Your task to perform on an android device: turn on airplane mode Image 0: 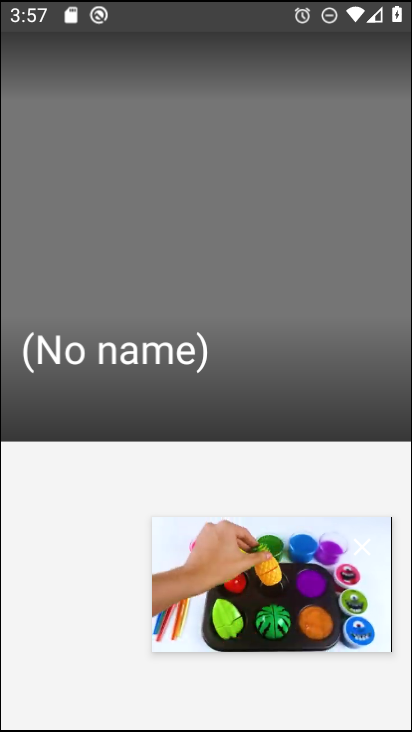
Step 0: click (380, 321)
Your task to perform on an android device: turn on airplane mode Image 1: 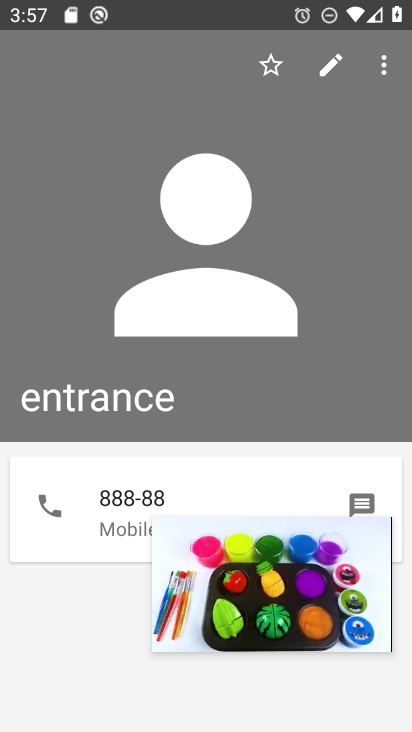
Step 1: press home button
Your task to perform on an android device: turn on airplane mode Image 2: 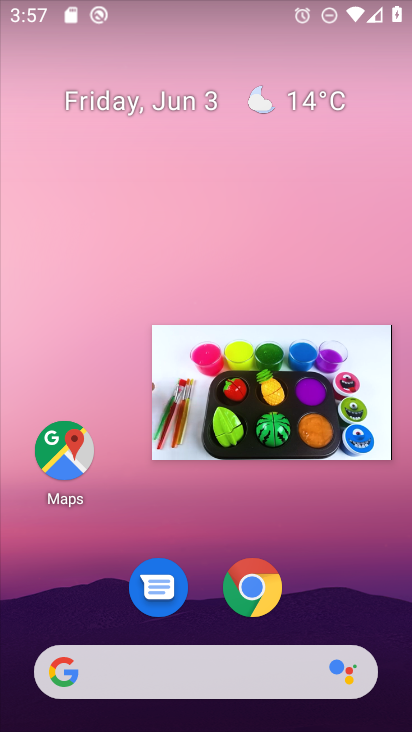
Step 2: click (374, 343)
Your task to perform on an android device: turn on airplane mode Image 3: 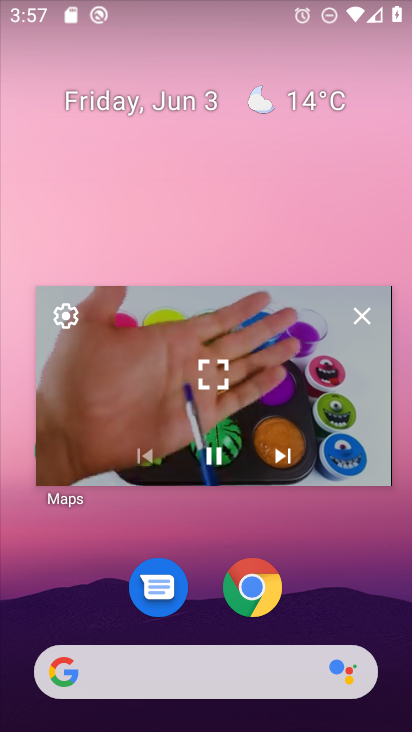
Step 3: click (363, 311)
Your task to perform on an android device: turn on airplane mode Image 4: 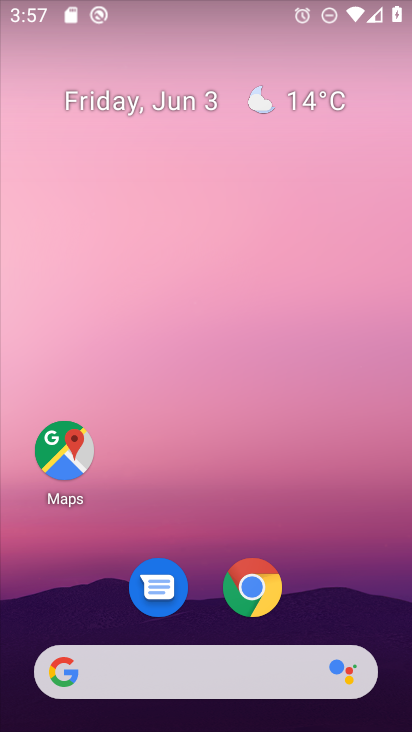
Step 4: drag from (200, 726) to (190, 179)
Your task to perform on an android device: turn on airplane mode Image 5: 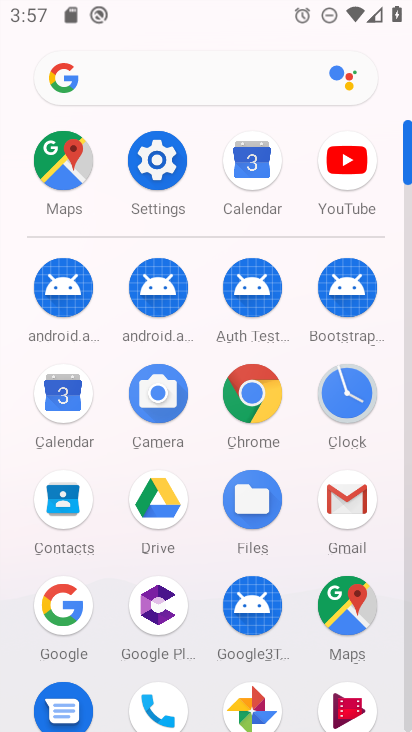
Step 5: click (159, 161)
Your task to perform on an android device: turn on airplane mode Image 6: 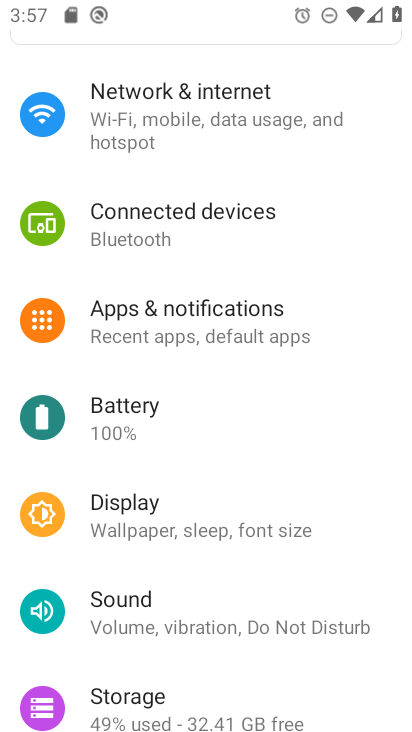
Step 6: drag from (237, 178) to (233, 539)
Your task to perform on an android device: turn on airplane mode Image 7: 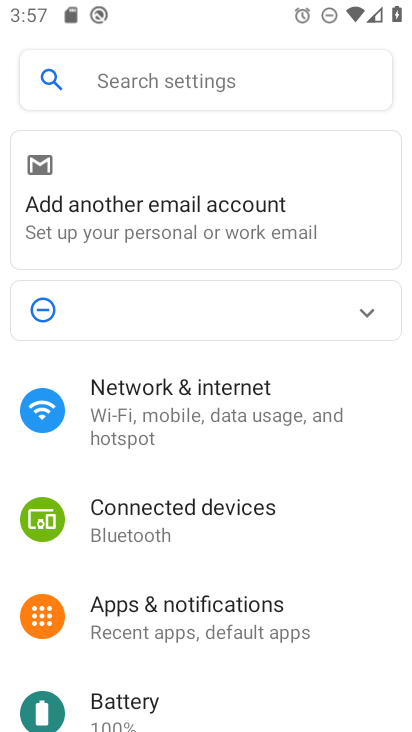
Step 7: click (202, 397)
Your task to perform on an android device: turn on airplane mode Image 8: 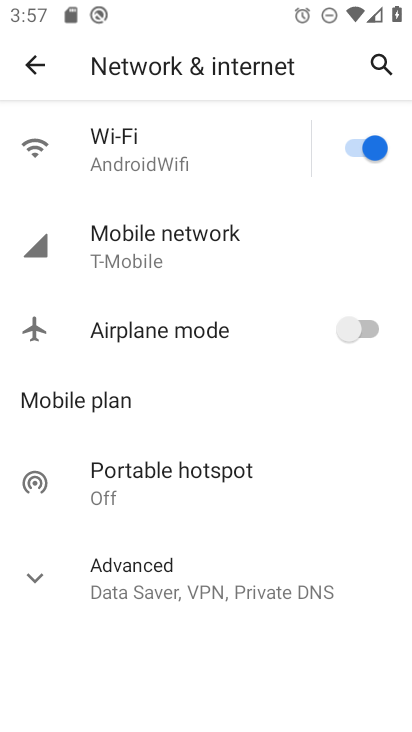
Step 8: click (365, 324)
Your task to perform on an android device: turn on airplane mode Image 9: 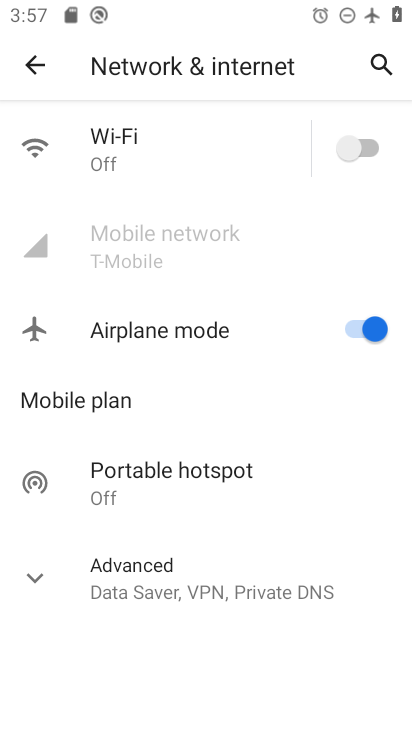
Step 9: task complete